Your task to perform on an android device: Go to wifi settings Image 0: 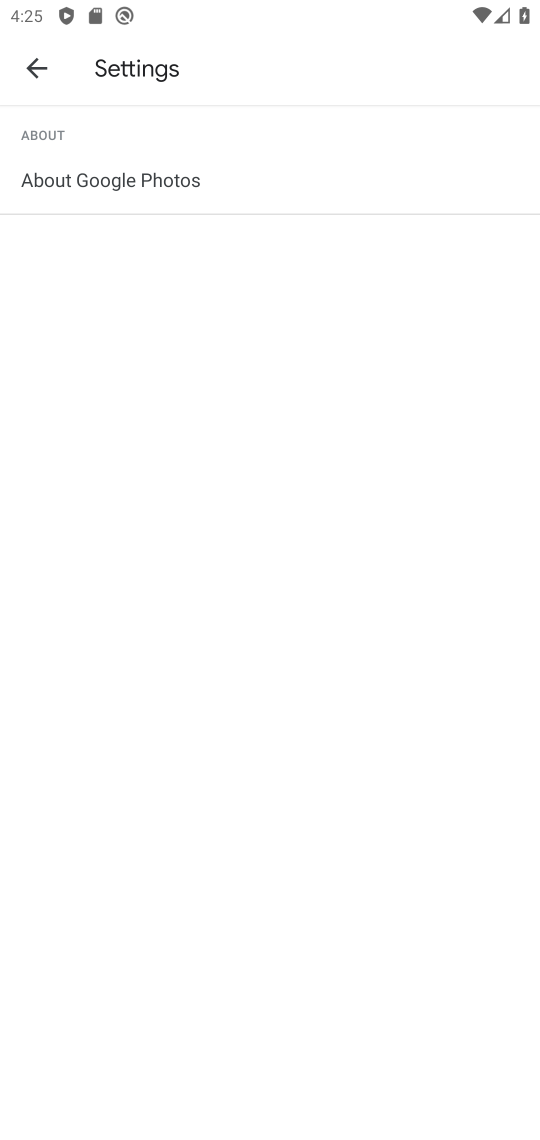
Step 0: press home button
Your task to perform on an android device: Go to wifi settings Image 1: 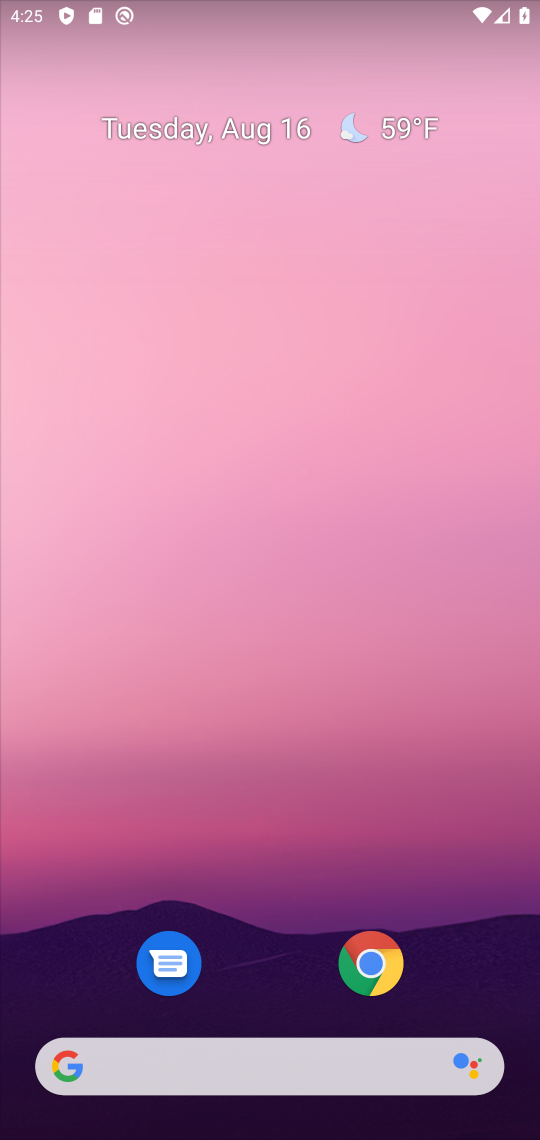
Step 1: drag from (256, 980) to (264, 208)
Your task to perform on an android device: Go to wifi settings Image 2: 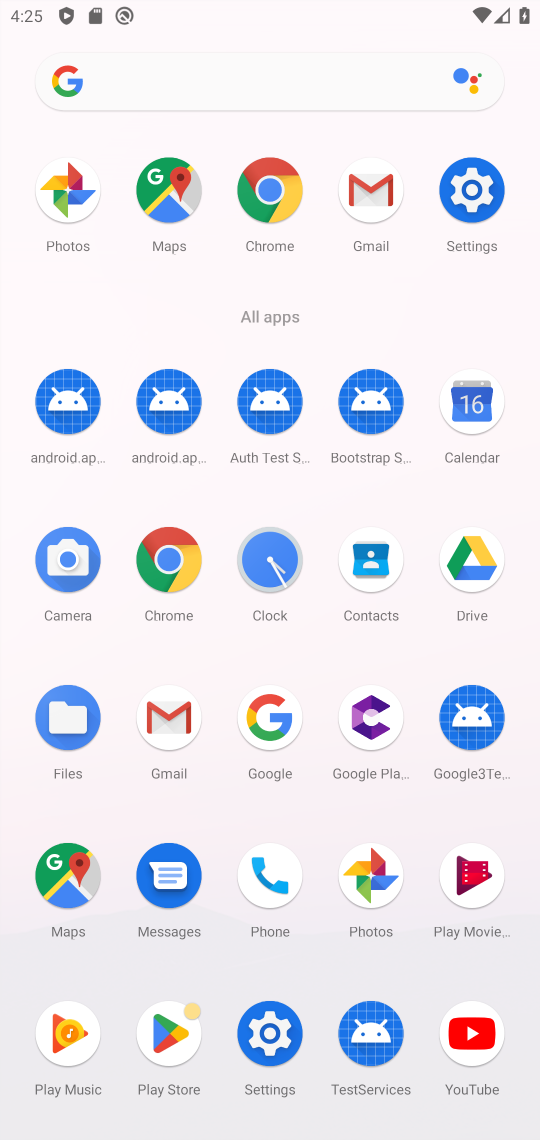
Step 2: click (489, 174)
Your task to perform on an android device: Go to wifi settings Image 3: 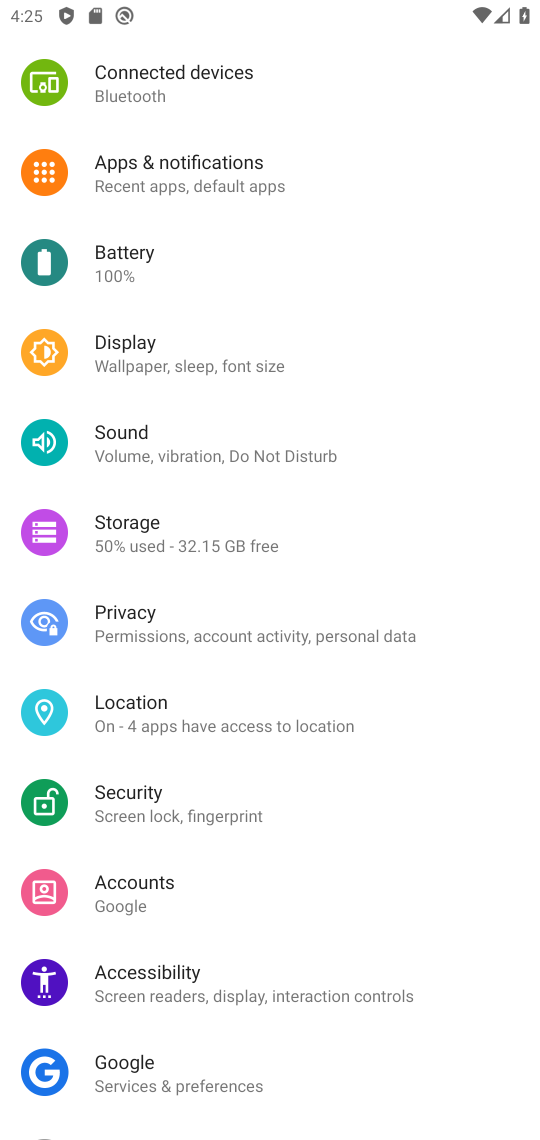
Step 3: drag from (200, 115) to (173, 656)
Your task to perform on an android device: Go to wifi settings Image 4: 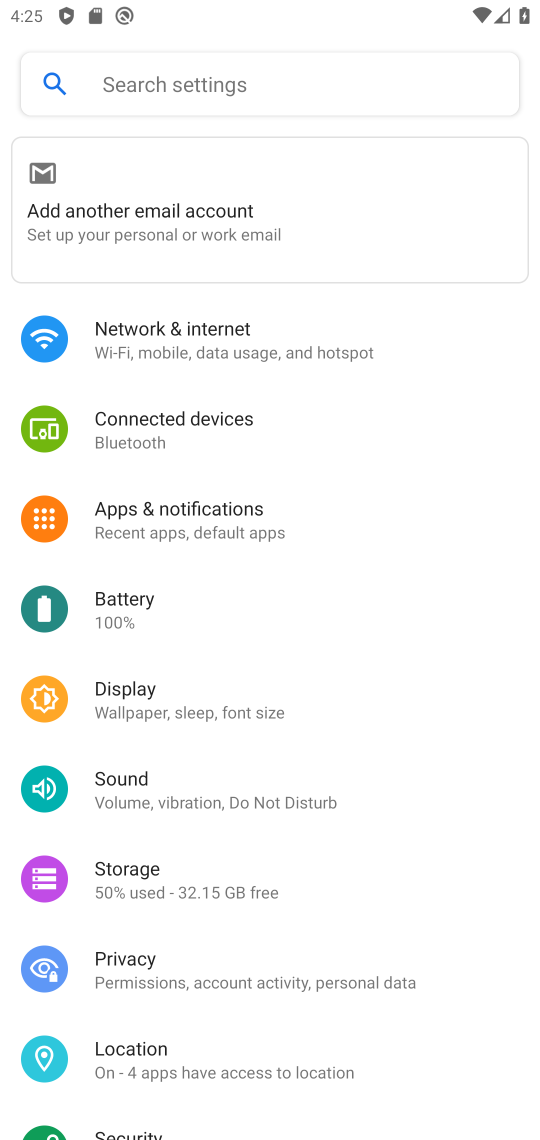
Step 4: click (161, 333)
Your task to perform on an android device: Go to wifi settings Image 5: 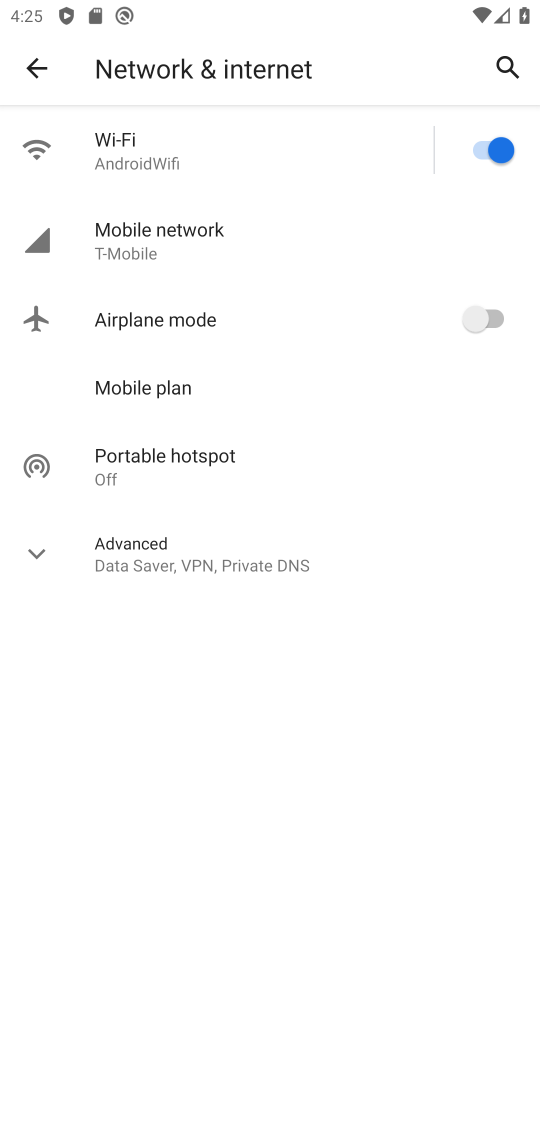
Step 5: click (33, 551)
Your task to perform on an android device: Go to wifi settings Image 6: 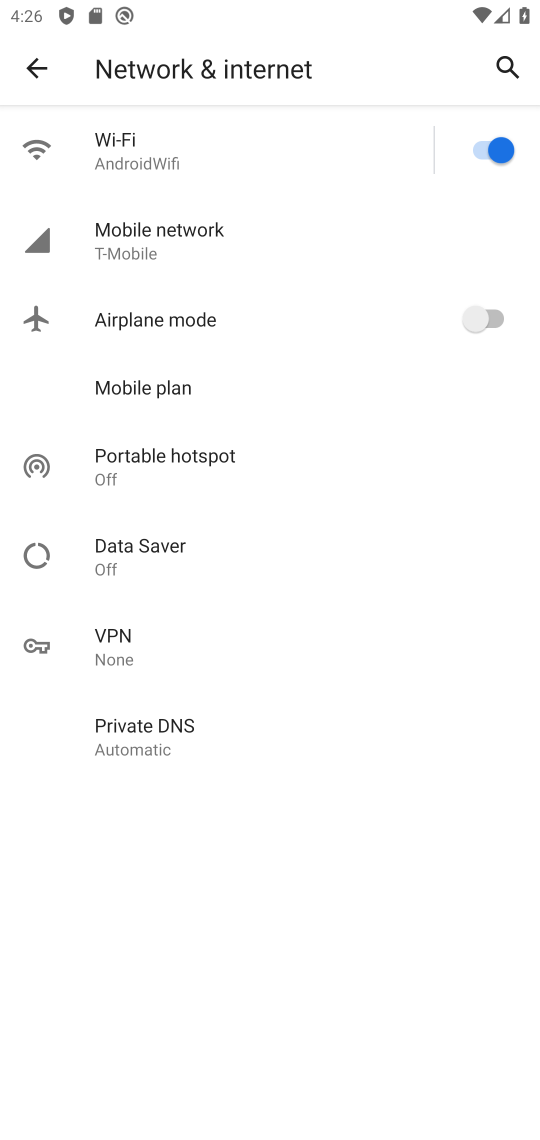
Step 6: task complete